Your task to perform on an android device: open app "Pandora - Music & Podcasts" (install if not already installed) Image 0: 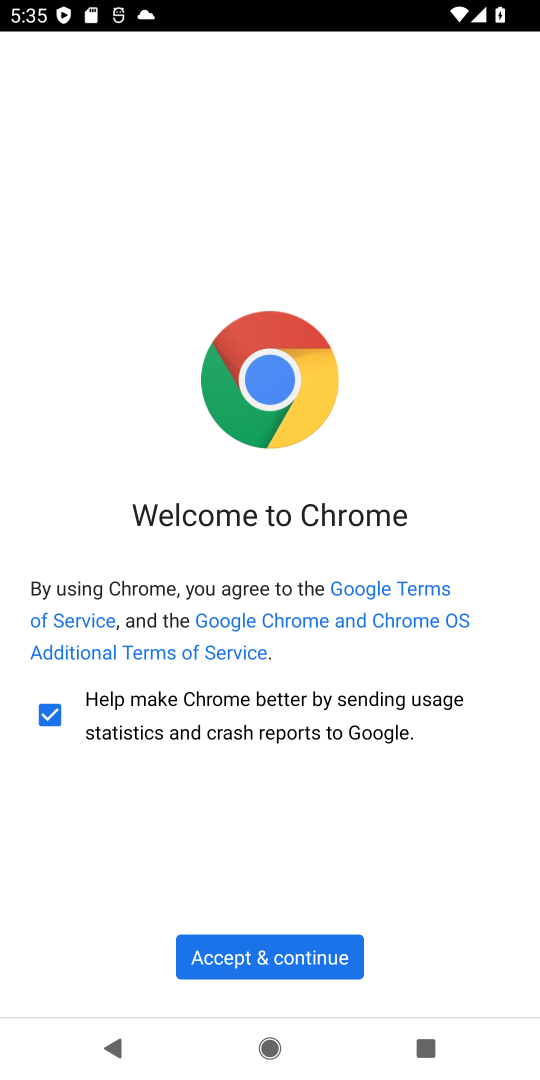
Step 0: press home button
Your task to perform on an android device: open app "Pandora - Music & Podcasts" (install if not already installed) Image 1: 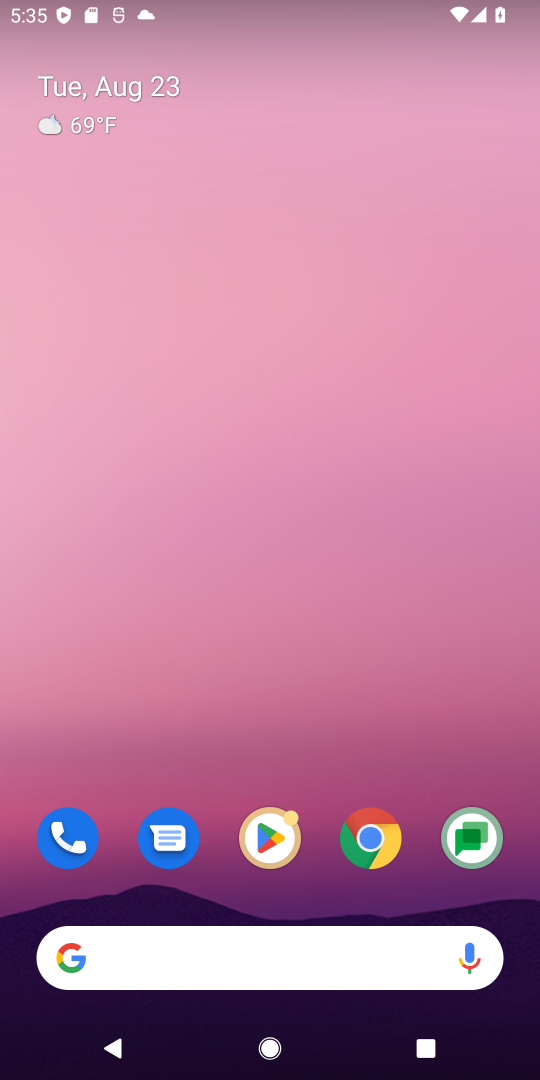
Step 1: drag from (314, 920) to (312, 104)
Your task to perform on an android device: open app "Pandora - Music & Podcasts" (install if not already installed) Image 2: 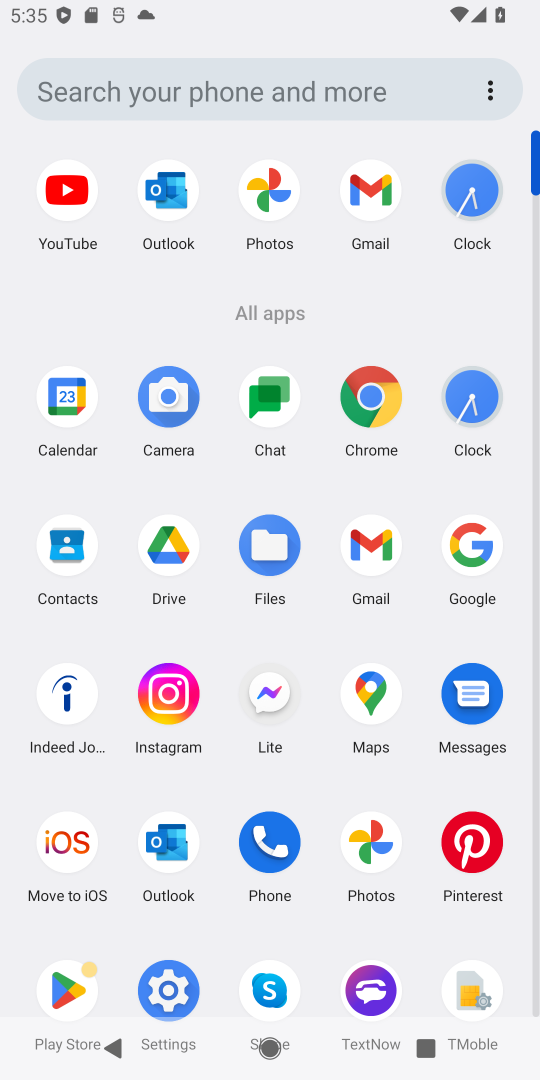
Step 2: click (65, 985)
Your task to perform on an android device: open app "Pandora - Music & Podcasts" (install if not already installed) Image 3: 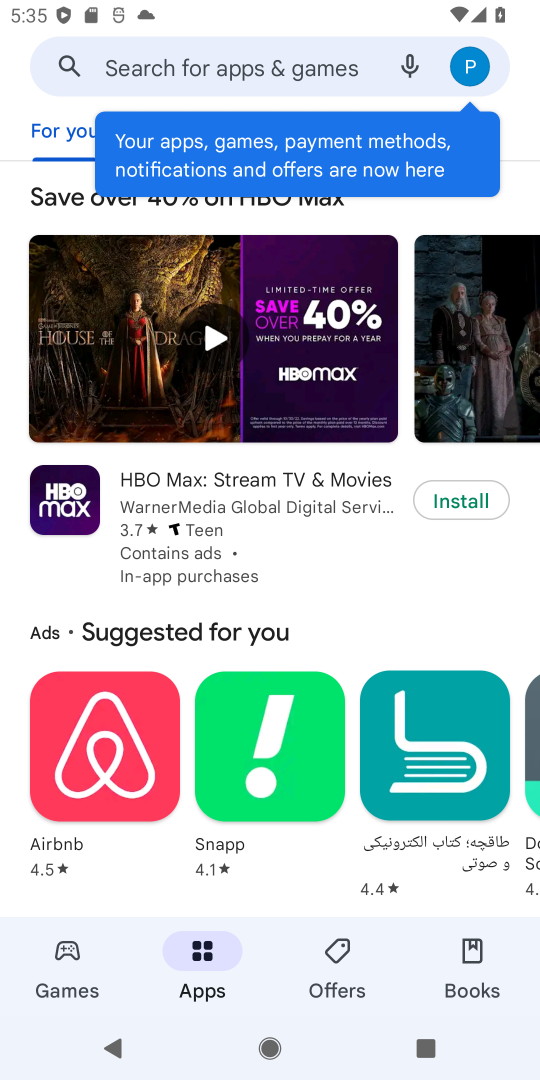
Step 3: press home button
Your task to perform on an android device: open app "Pandora - Music & Podcasts" (install if not already installed) Image 4: 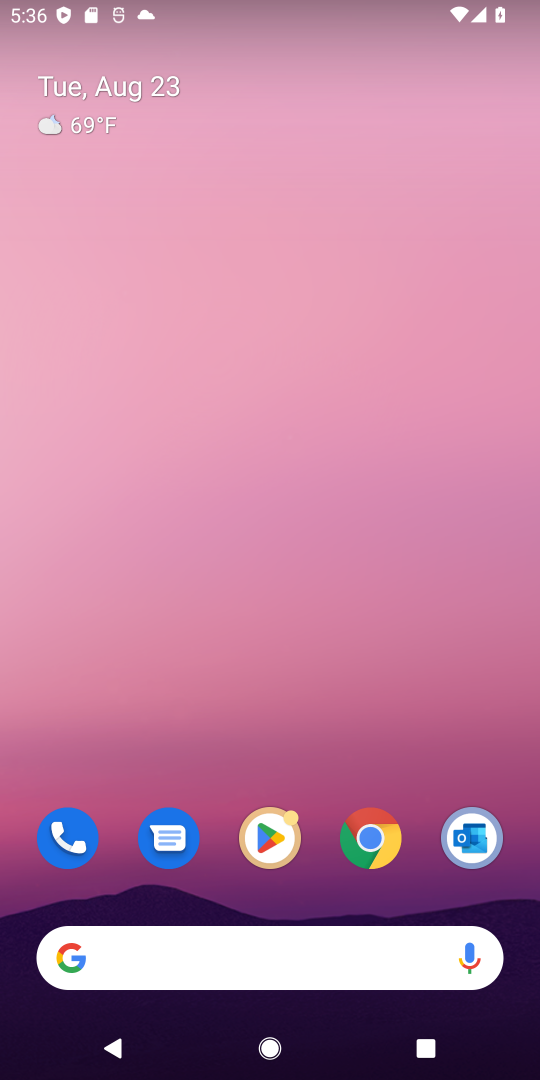
Step 4: click (270, 842)
Your task to perform on an android device: open app "Pandora - Music & Podcasts" (install if not already installed) Image 5: 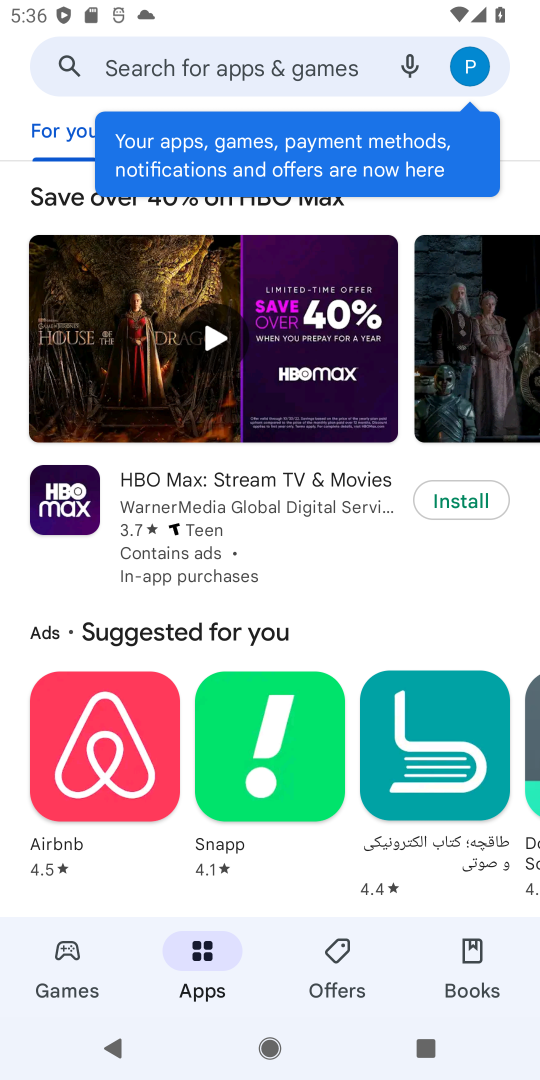
Step 5: click (296, 69)
Your task to perform on an android device: open app "Pandora - Music & Podcasts" (install if not already installed) Image 6: 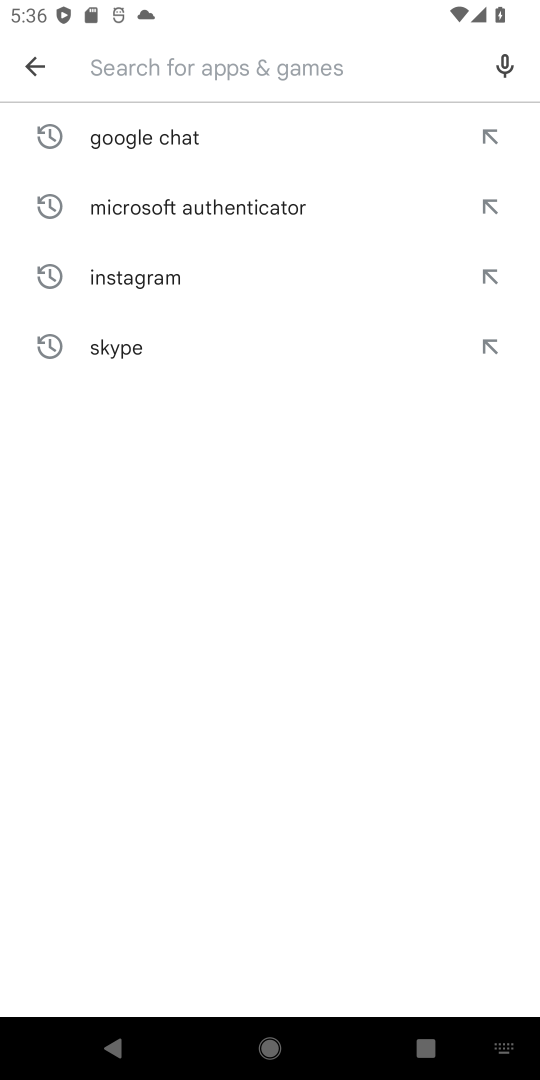
Step 6: type "Pandora - Music & Podcasts"
Your task to perform on an android device: open app "Pandora - Music & Podcasts" (install if not already installed) Image 7: 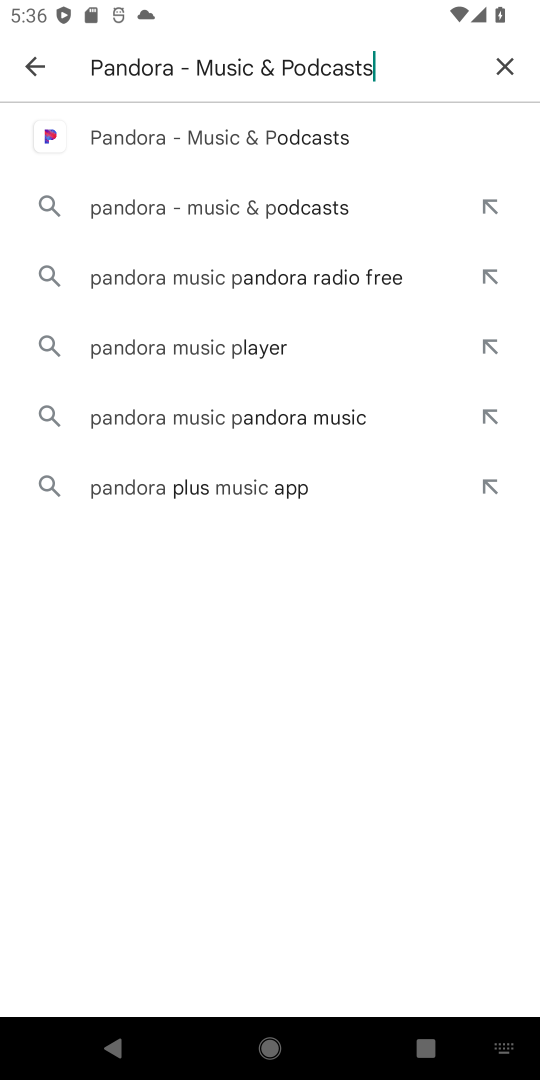
Step 7: type ""
Your task to perform on an android device: open app "Pandora - Music & Podcasts" (install if not already installed) Image 8: 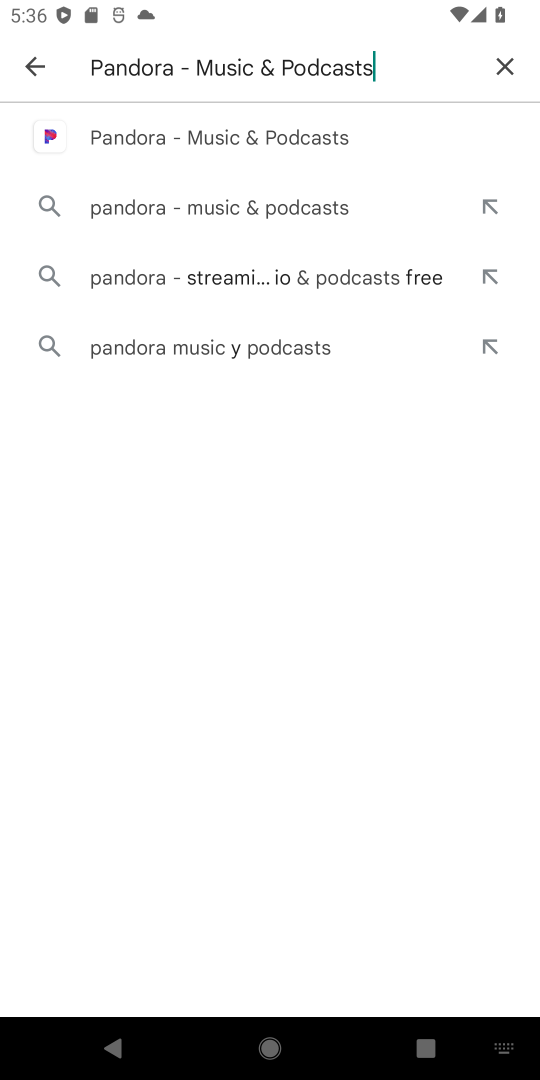
Step 8: click (214, 136)
Your task to perform on an android device: open app "Pandora - Music & Podcasts" (install if not already installed) Image 9: 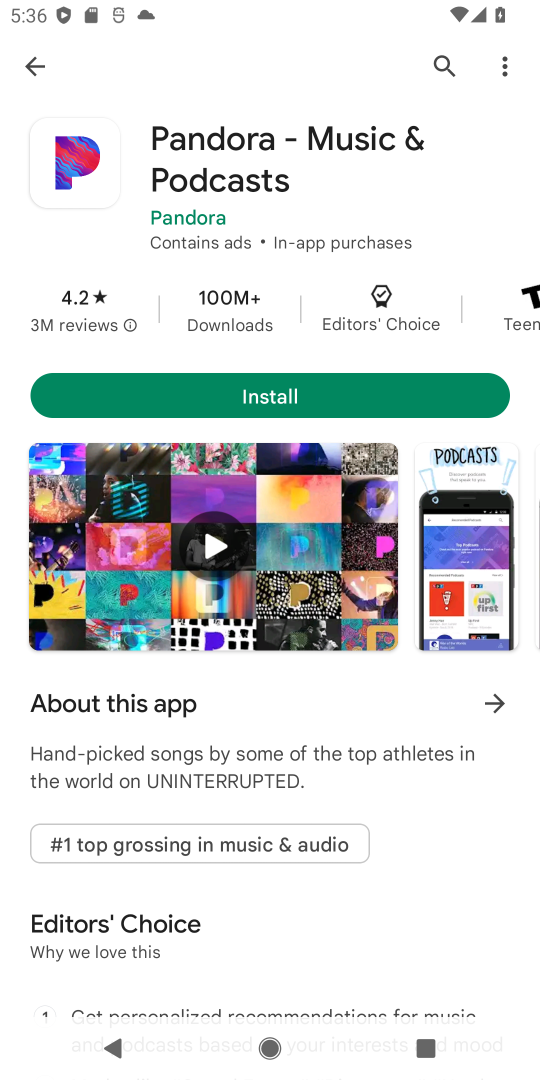
Step 9: click (258, 395)
Your task to perform on an android device: open app "Pandora - Music & Podcasts" (install if not already installed) Image 10: 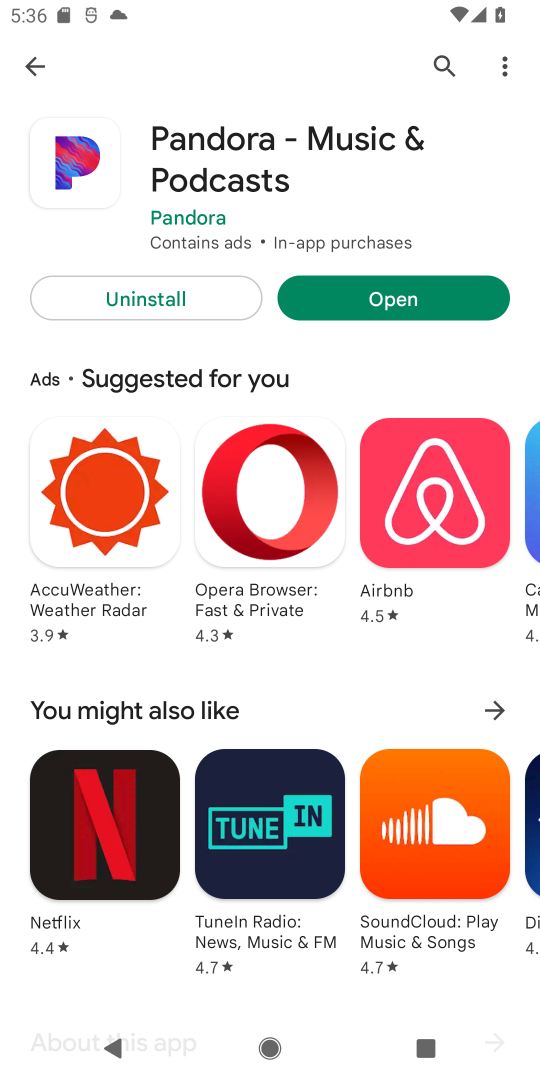
Step 10: click (401, 303)
Your task to perform on an android device: open app "Pandora - Music & Podcasts" (install if not already installed) Image 11: 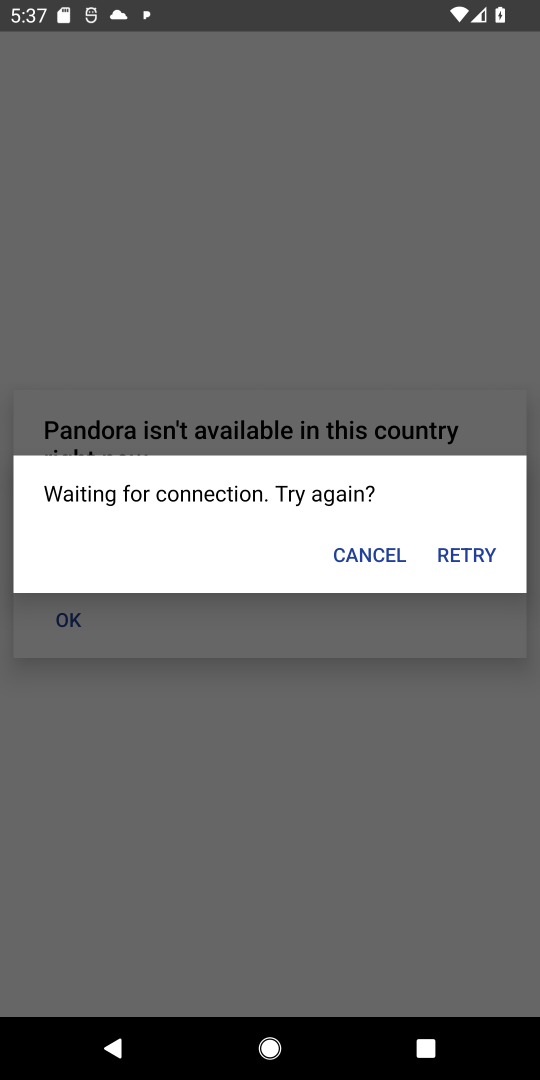
Step 11: task complete